Your task to perform on an android device: allow notifications from all sites in the chrome app Image 0: 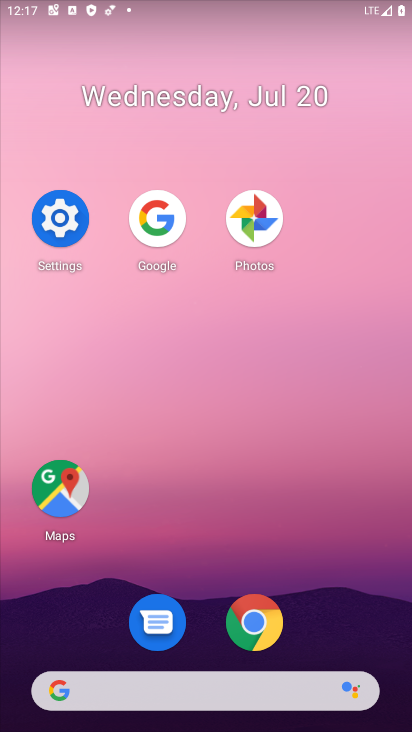
Step 0: click (247, 619)
Your task to perform on an android device: allow notifications from all sites in the chrome app Image 1: 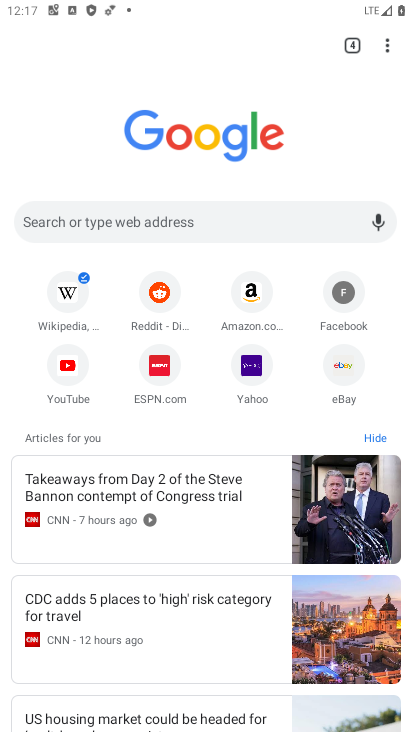
Step 1: click (386, 50)
Your task to perform on an android device: allow notifications from all sites in the chrome app Image 2: 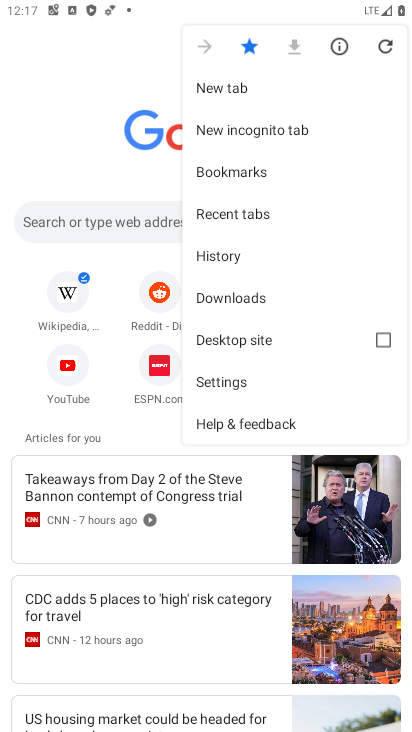
Step 2: click (286, 377)
Your task to perform on an android device: allow notifications from all sites in the chrome app Image 3: 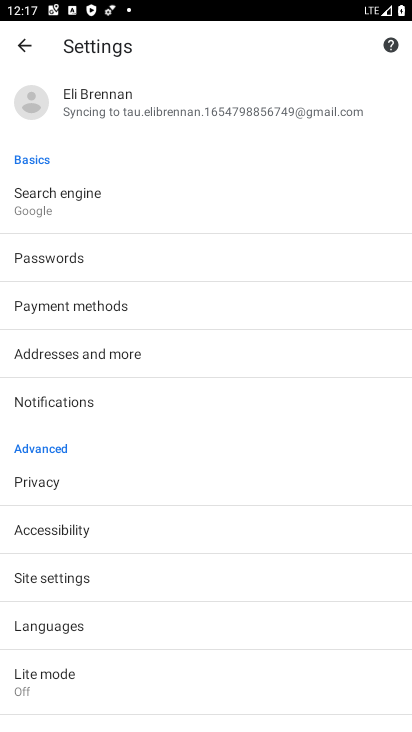
Step 3: drag from (172, 571) to (201, 230)
Your task to perform on an android device: allow notifications from all sites in the chrome app Image 4: 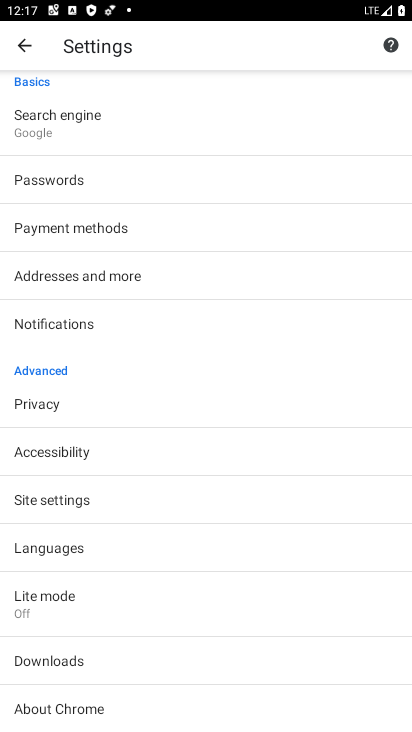
Step 4: click (139, 326)
Your task to perform on an android device: allow notifications from all sites in the chrome app Image 5: 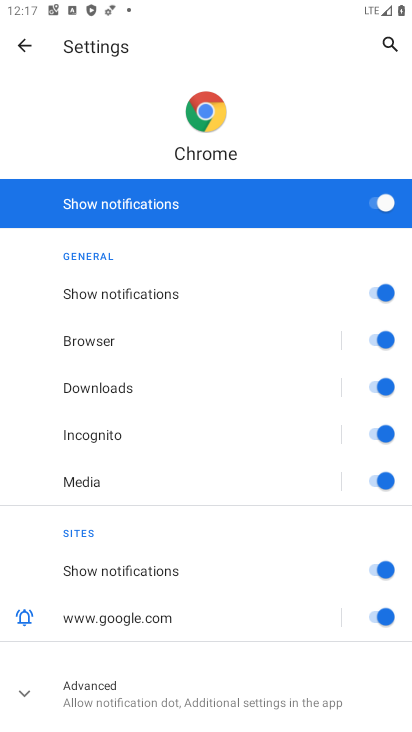
Step 5: task complete